Your task to perform on an android device: check out phone information Image 0: 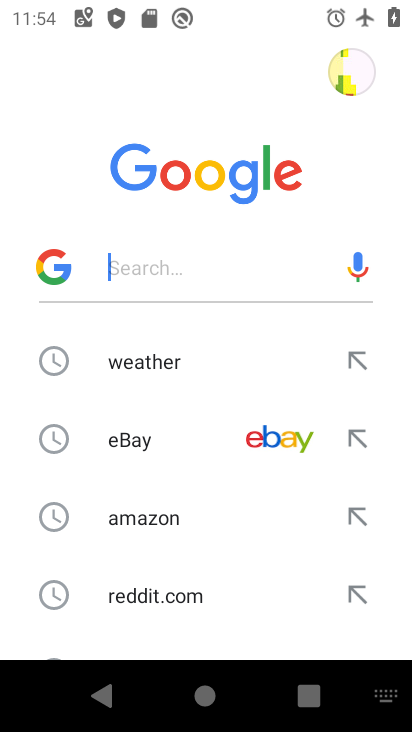
Step 0: press home button
Your task to perform on an android device: check out phone information Image 1: 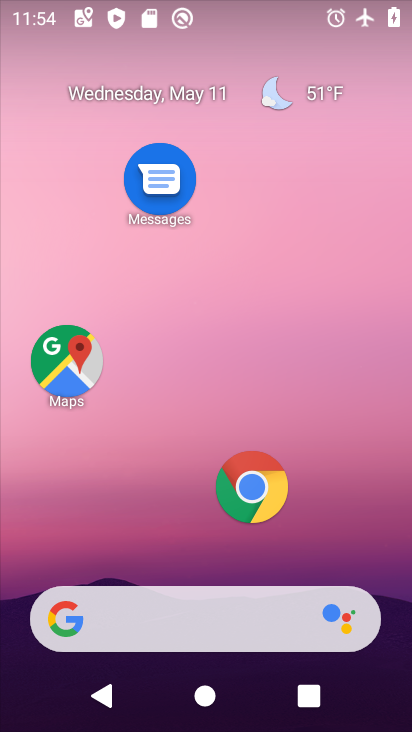
Step 1: drag from (155, 563) to (211, 99)
Your task to perform on an android device: check out phone information Image 2: 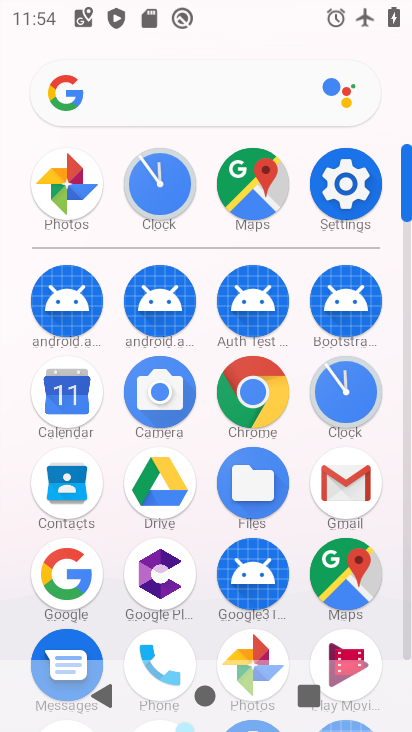
Step 2: click (320, 208)
Your task to perform on an android device: check out phone information Image 3: 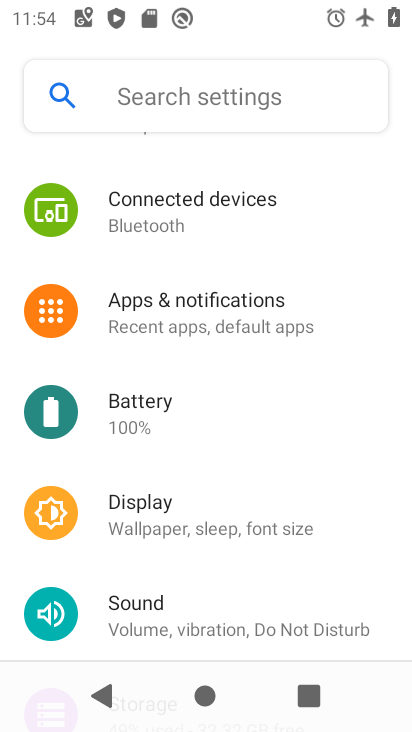
Step 3: drag from (190, 566) to (188, 196)
Your task to perform on an android device: check out phone information Image 4: 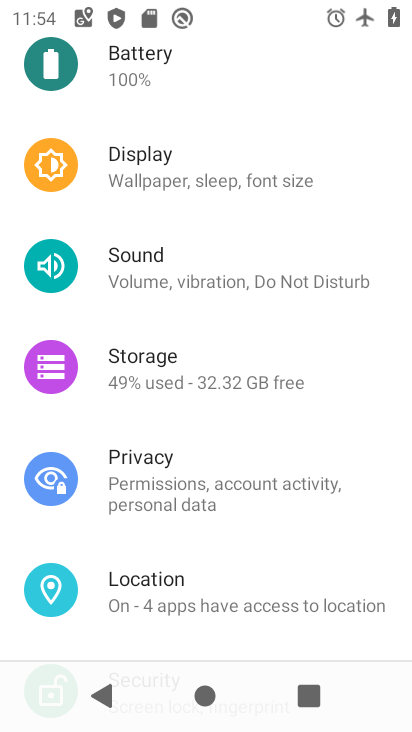
Step 4: drag from (205, 562) to (206, 291)
Your task to perform on an android device: check out phone information Image 5: 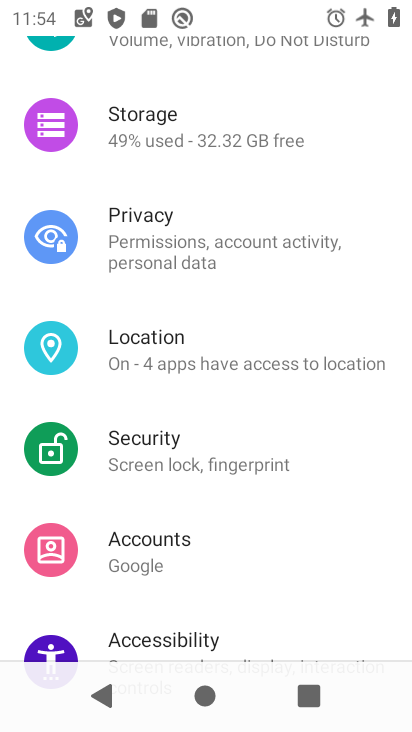
Step 5: drag from (185, 603) to (185, 390)
Your task to perform on an android device: check out phone information Image 6: 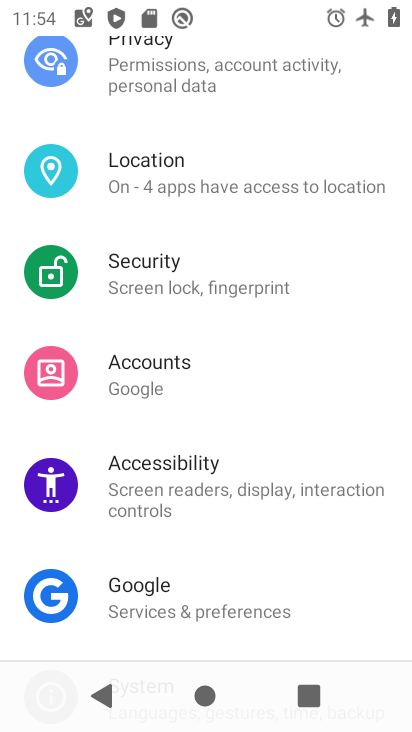
Step 6: drag from (215, 604) to (210, 364)
Your task to perform on an android device: check out phone information Image 7: 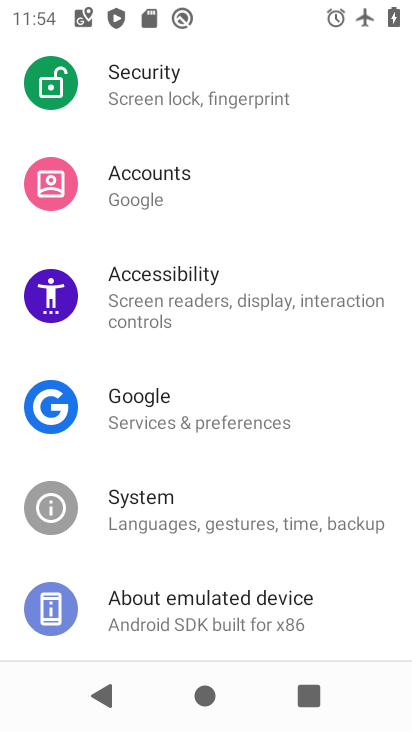
Step 7: click (176, 613)
Your task to perform on an android device: check out phone information Image 8: 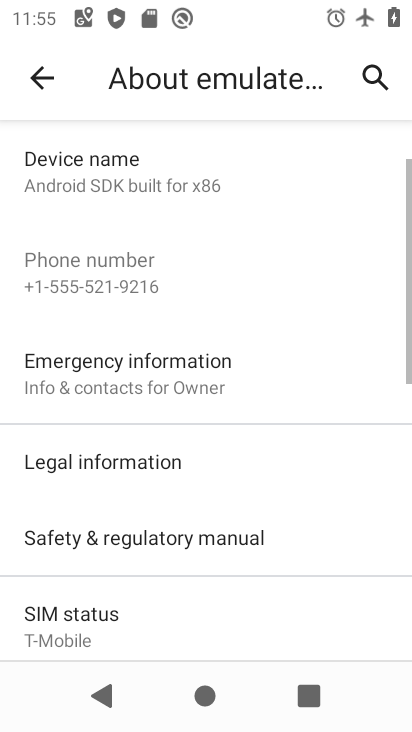
Step 8: task complete